Your task to perform on an android device: Open Yahoo.com Image 0: 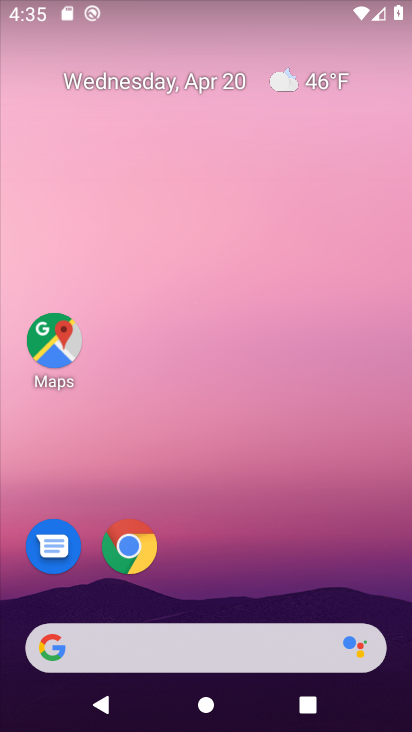
Step 0: drag from (360, 421) to (410, 62)
Your task to perform on an android device: Open Yahoo.com Image 1: 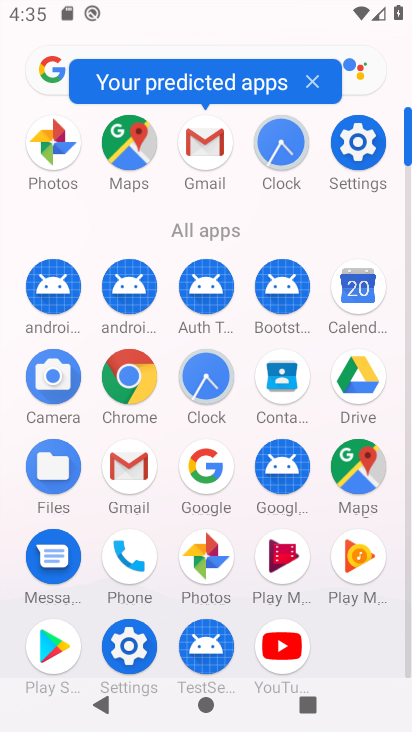
Step 1: click (136, 379)
Your task to perform on an android device: Open Yahoo.com Image 2: 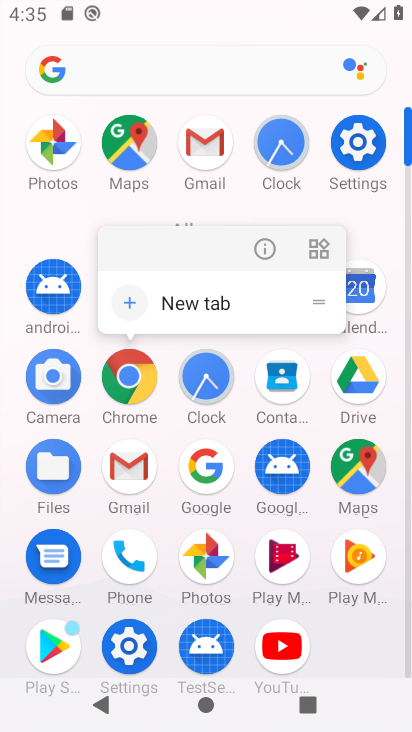
Step 2: click (137, 378)
Your task to perform on an android device: Open Yahoo.com Image 3: 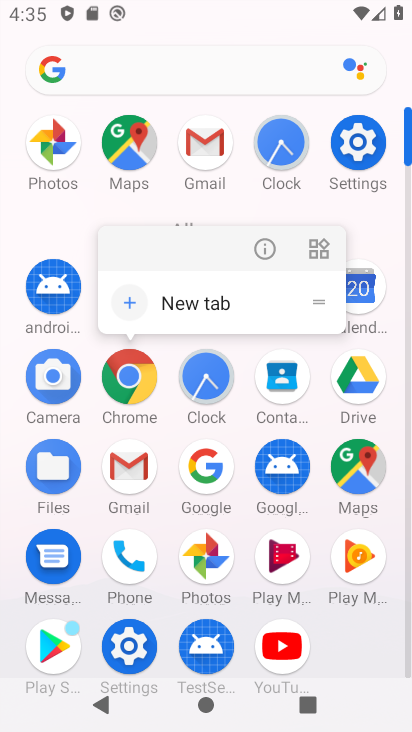
Step 3: click (137, 379)
Your task to perform on an android device: Open Yahoo.com Image 4: 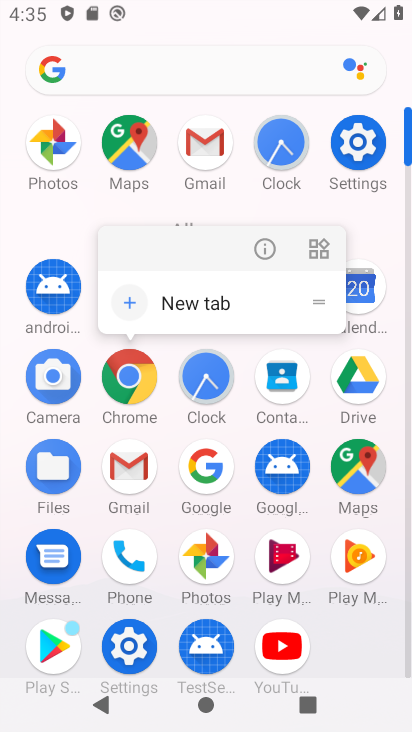
Step 4: click (137, 377)
Your task to perform on an android device: Open Yahoo.com Image 5: 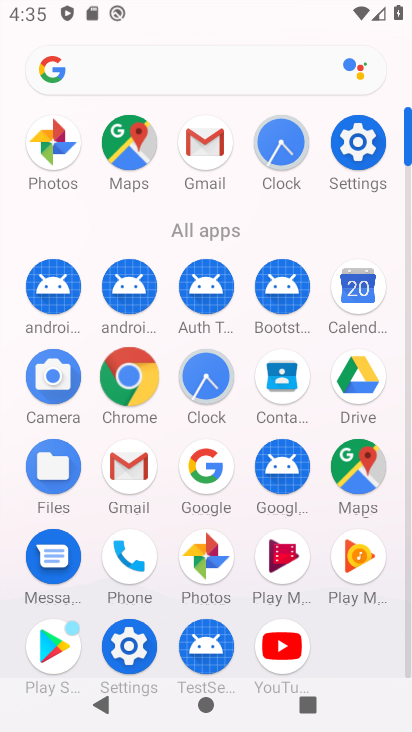
Step 5: click (137, 378)
Your task to perform on an android device: Open Yahoo.com Image 6: 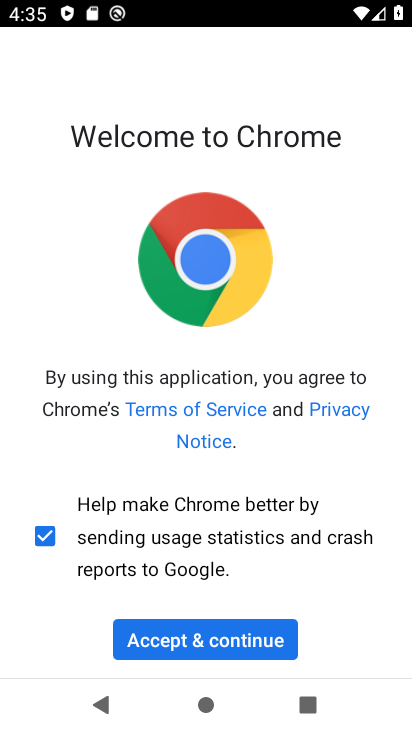
Step 6: click (250, 644)
Your task to perform on an android device: Open Yahoo.com Image 7: 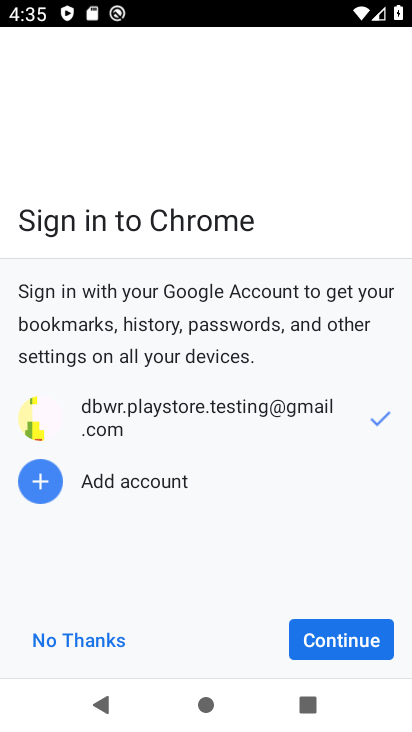
Step 7: click (100, 642)
Your task to perform on an android device: Open Yahoo.com Image 8: 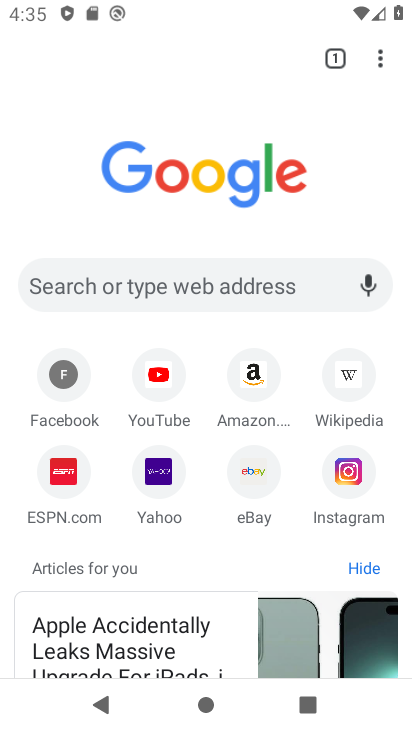
Step 8: click (165, 481)
Your task to perform on an android device: Open Yahoo.com Image 9: 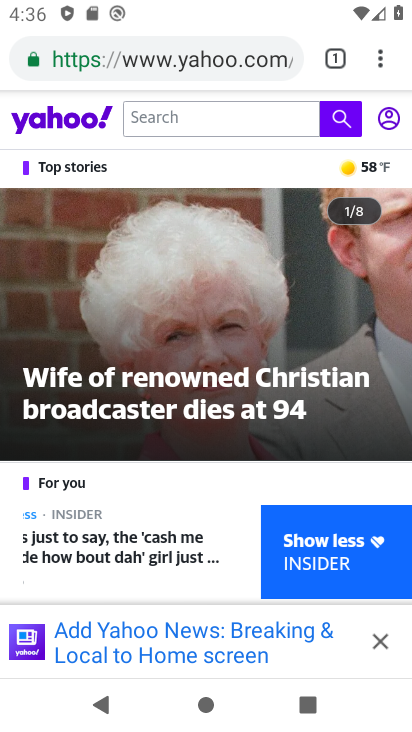
Step 9: task complete